Your task to perform on an android device: open chrome and create a bookmark for the current page Image 0: 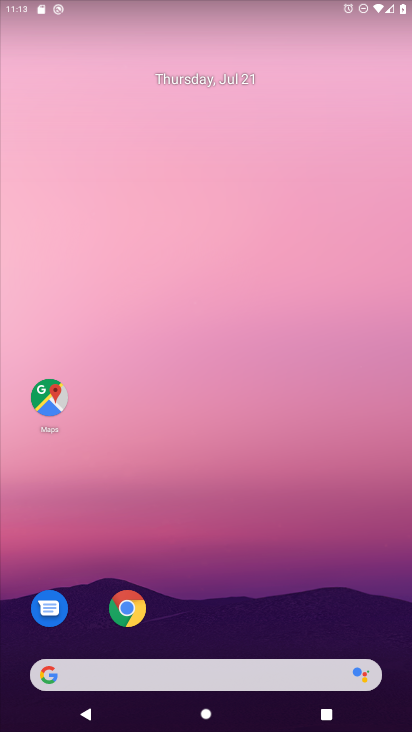
Step 0: drag from (389, 625) to (226, 26)
Your task to perform on an android device: open chrome and create a bookmark for the current page Image 1: 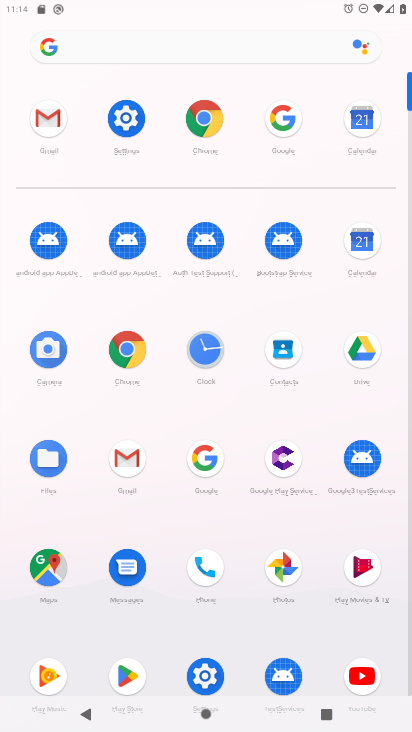
Step 1: click (212, 121)
Your task to perform on an android device: open chrome and create a bookmark for the current page Image 2: 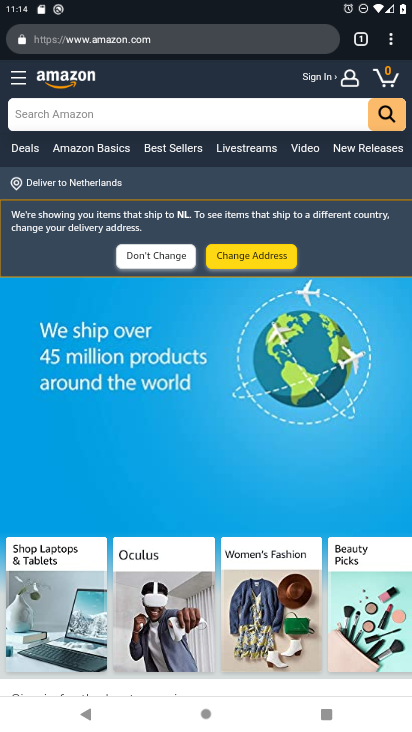
Step 2: click (387, 35)
Your task to perform on an android device: open chrome and create a bookmark for the current page Image 3: 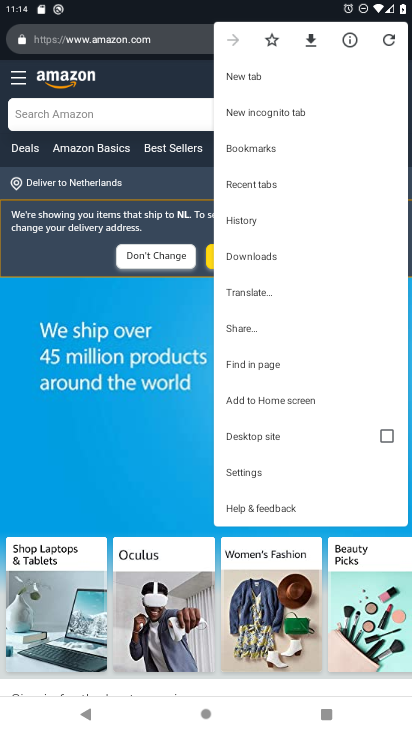
Step 3: click (268, 42)
Your task to perform on an android device: open chrome and create a bookmark for the current page Image 4: 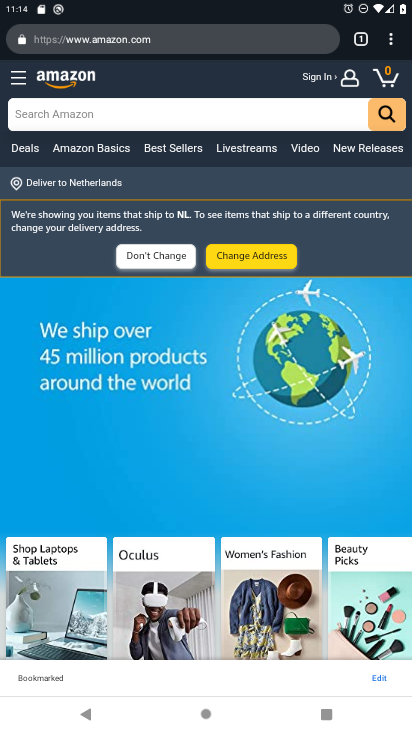
Step 4: task complete